Your task to perform on an android device: Open Chrome and go to settings Image 0: 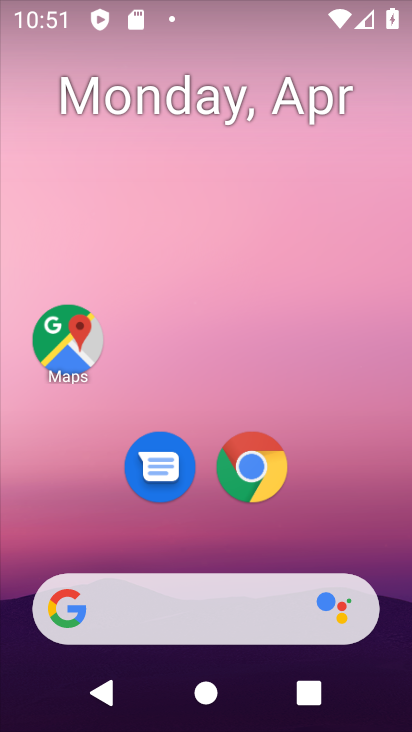
Step 0: click (242, 499)
Your task to perform on an android device: Open Chrome and go to settings Image 1: 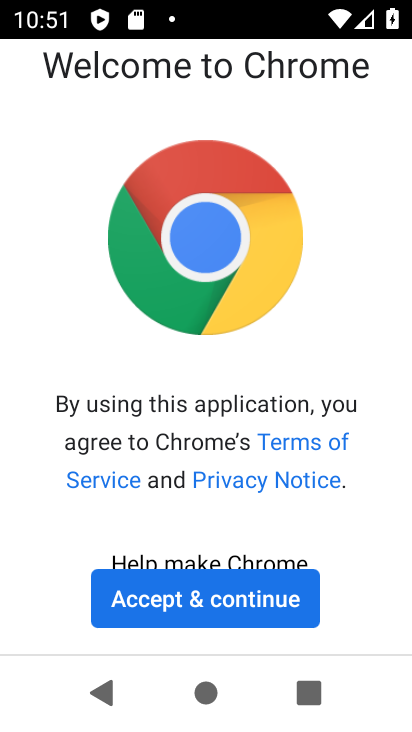
Step 1: click (252, 619)
Your task to perform on an android device: Open Chrome and go to settings Image 2: 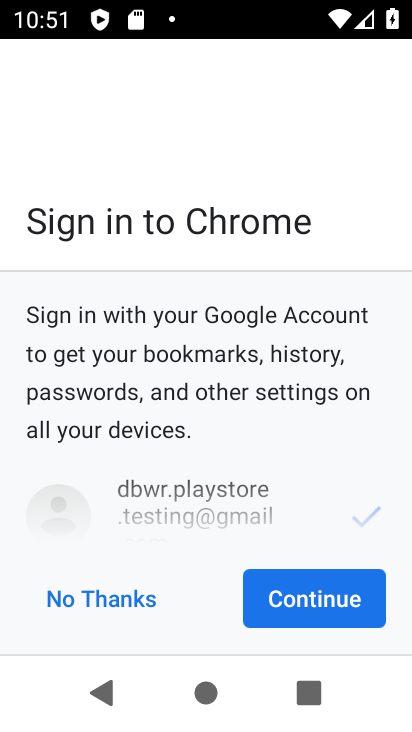
Step 2: click (323, 610)
Your task to perform on an android device: Open Chrome and go to settings Image 3: 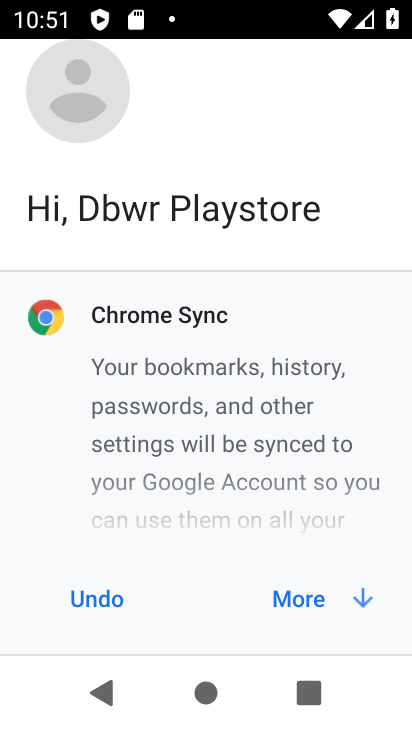
Step 3: click (304, 603)
Your task to perform on an android device: Open Chrome and go to settings Image 4: 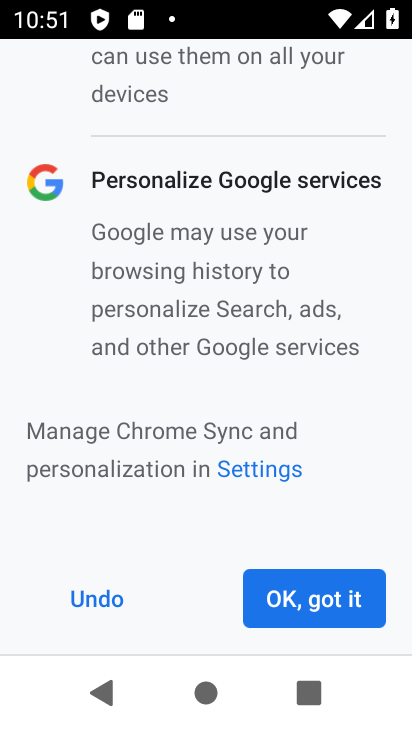
Step 4: click (304, 603)
Your task to perform on an android device: Open Chrome and go to settings Image 5: 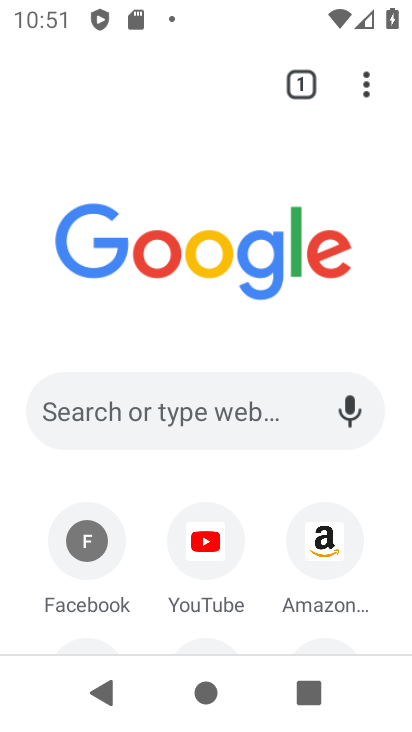
Step 5: click (363, 87)
Your task to perform on an android device: Open Chrome and go to settings Image 6: 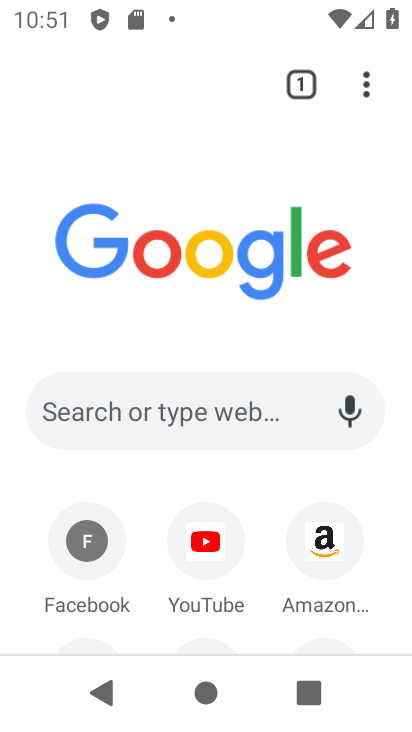
Step 6: click (364, 87)
Your task to perform on an android device: Open Chrome and go to settings Image 7: 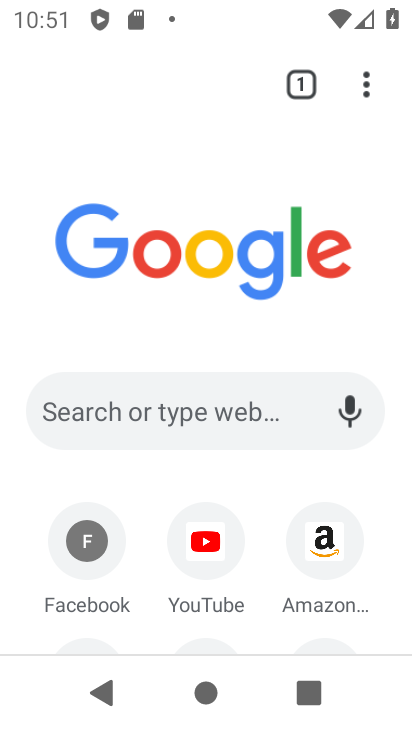
Step 7: task complete